Your task to perform on an android device: empty trash in the gmail app Image 0: 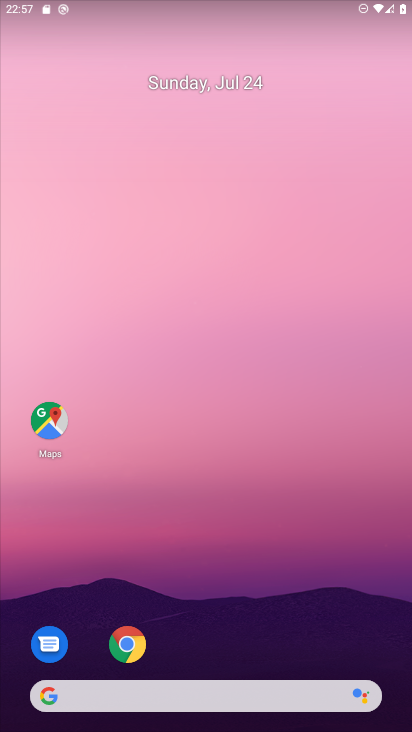
Step 0: drag from (367, 635) to (285, 196)
Your task to perform on an android device: empty trash in the gmail app Image 1: 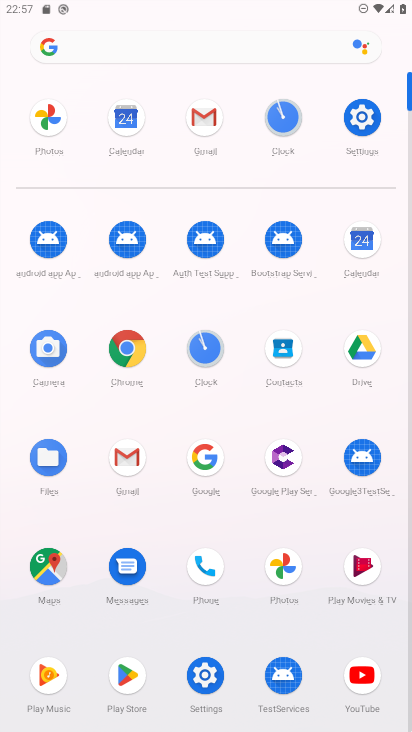
Step 1: click (129, 454)
Your task to perform on an android device: empty trash in the gmail app Image 2: 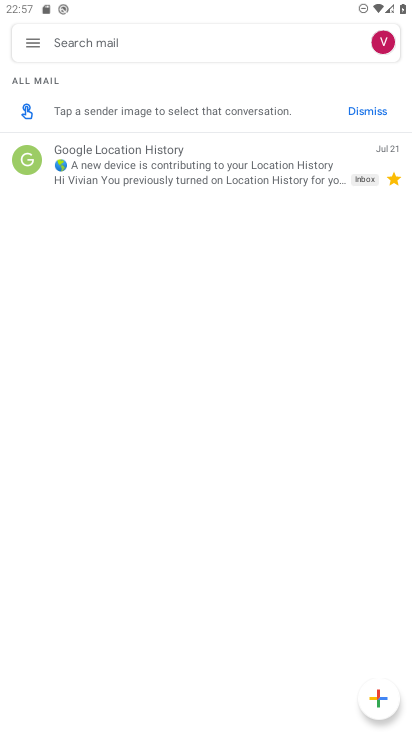
Step 2: click (35, 43)
Your task to perform on an android device: empty trash in the gmail app Image 3: 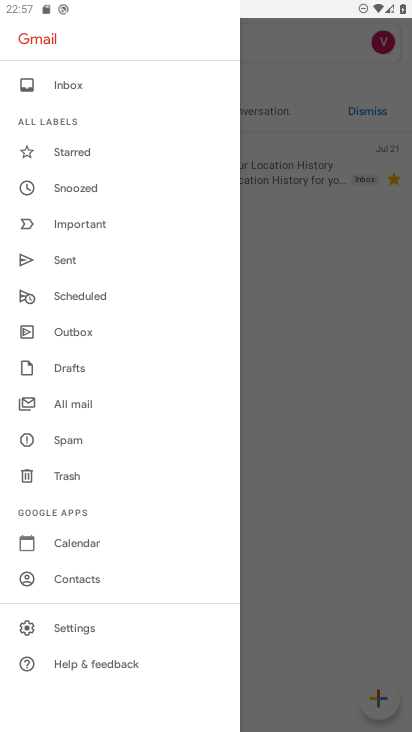
Step 3: click (69, 474)
Your task to perform on an android device: empty trash in the gmail app Image 4: 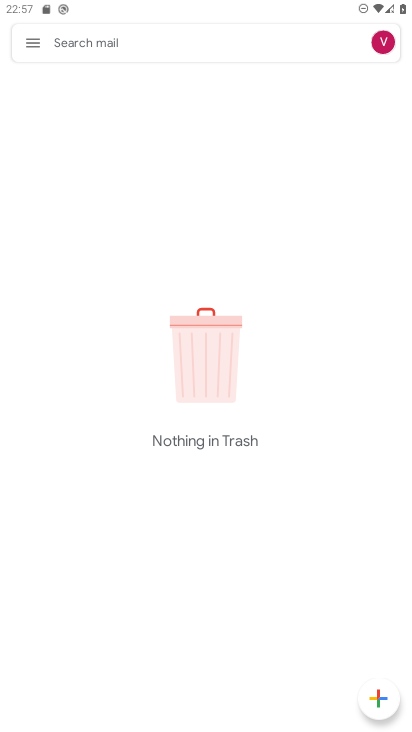
Step 4: task complete